Your task to perform on an android device: turn on wifi Image 0: 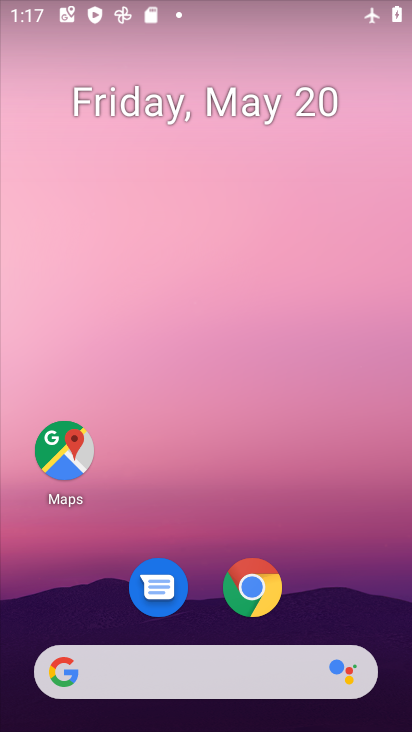
Step 0: drag from (309, 541) to (231, 41)
Your task to perform on an android device: turn on wifi Image 1: 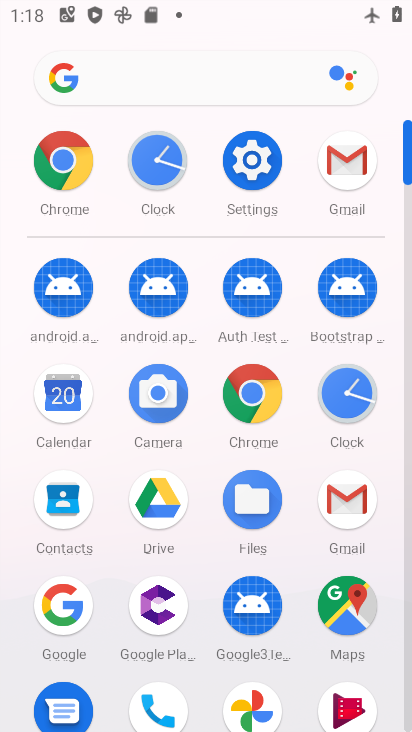
Step 1: click (251, 150)
Your task to perform on an android device: turn on wifi Image 2: 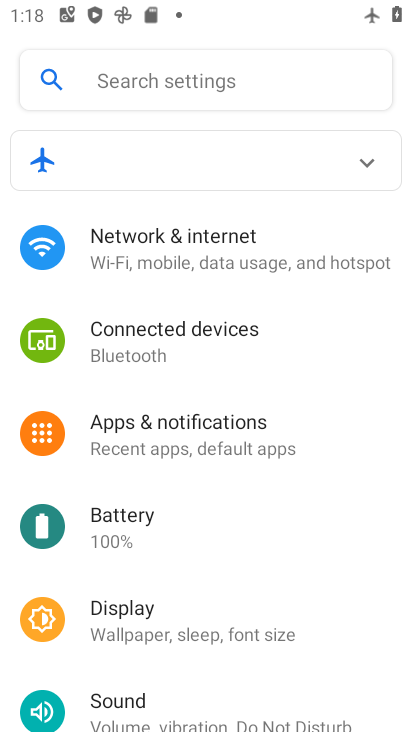
Step 2: click (187, 244)
Your task to perform on an android device: turn on wifi Image 3: 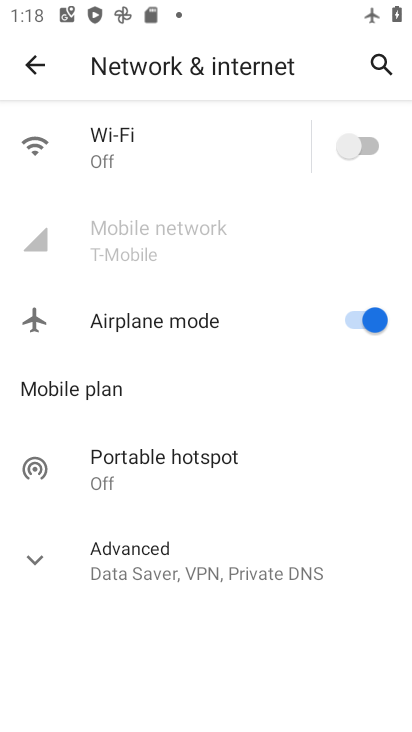
Step 3: click (357, 134)
Your task to perform on an android device: turn on wifi Image 4: 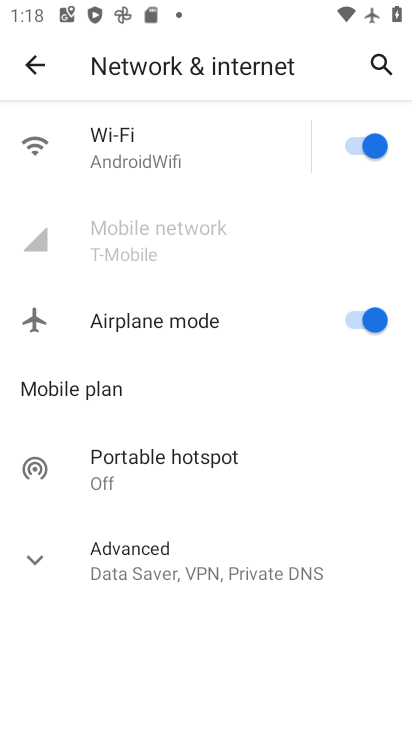
Step 4: task complete